Your task to perform on an android device: turn vacation reply on in the gmail app Image 0: 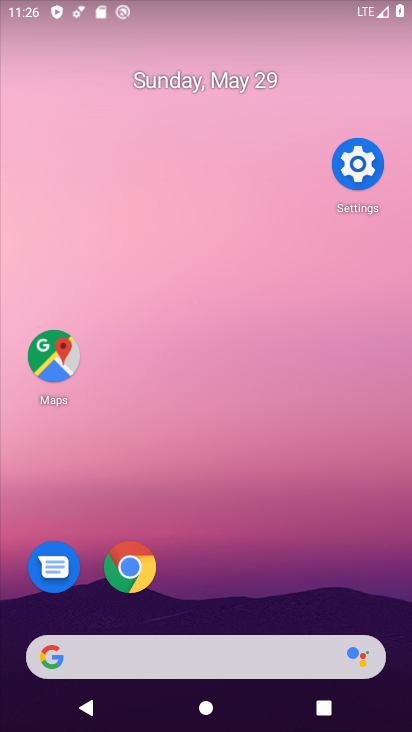
Step 0: drag from (324, 558) to (295, 165)
Your task to perform on an android device: turn vacation reply on in the gmail app Image 1: 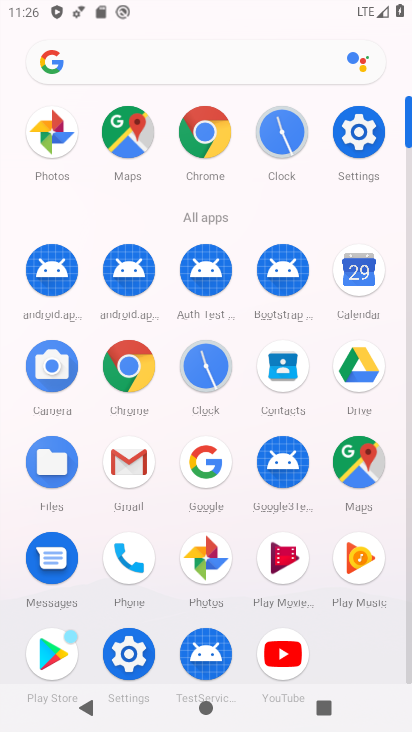
Step 1: click (129, 462)
Your task to perform on an android device: turn vacation reply on in the gmail app Image 2: 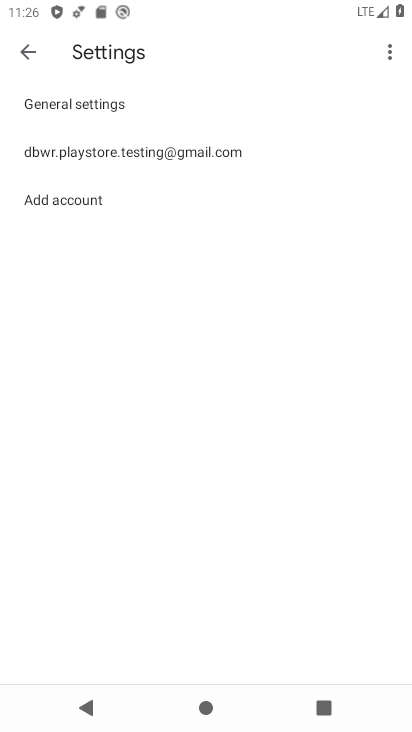
Step 2: click (153, 145)
Your task to perform on an android device: turn vacation reply on in the gmail app Image 3: 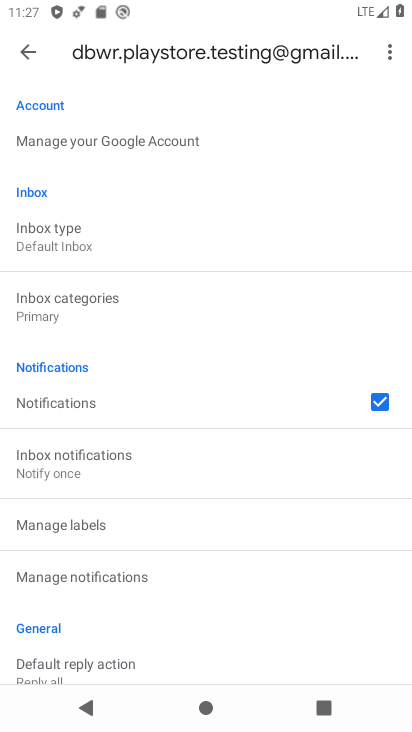
Step 3: task complete